Your task to perform on an android device: manage bookmarks in the chrome app Image 0: 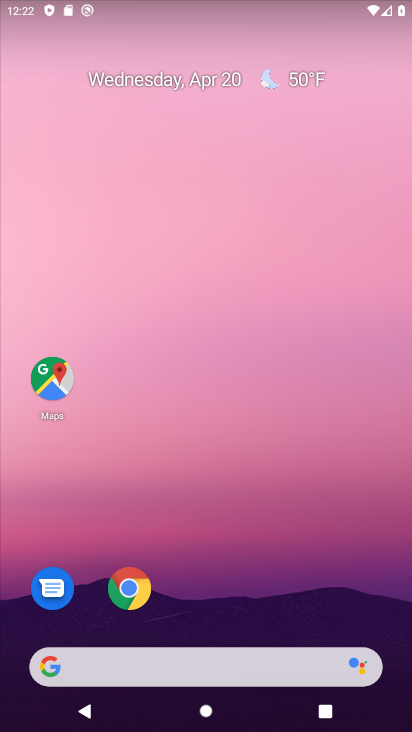
Step 0: click (125, 585)
Your task to perform on an android device: manage bookmarks in the chrome app Image 1: 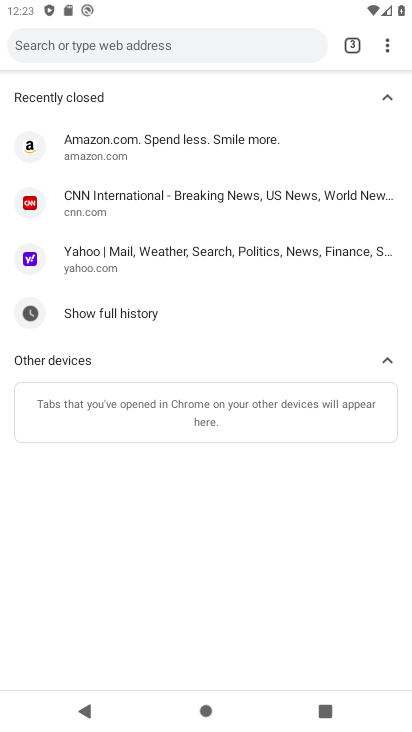
Step 1: click (381, 45)
Your task to perform on an android device: manage bookmarks in the chrome app Image 2: 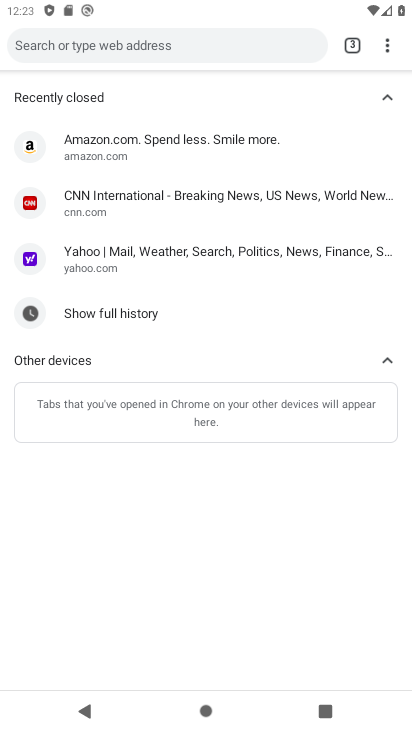
Step 2: click (388, 43)
Your task to perform on an android device: manage bookmarks in the chrome app Image 3: 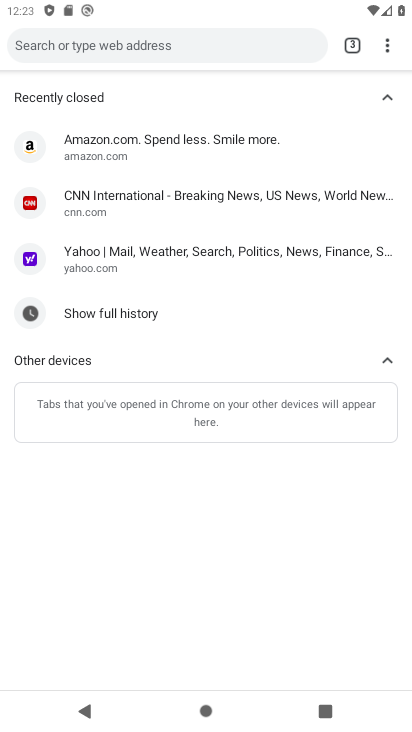
Step 3: click (388, 44)
Your task to perform on an android device: manage bookmarks in the chrome app Image 4: 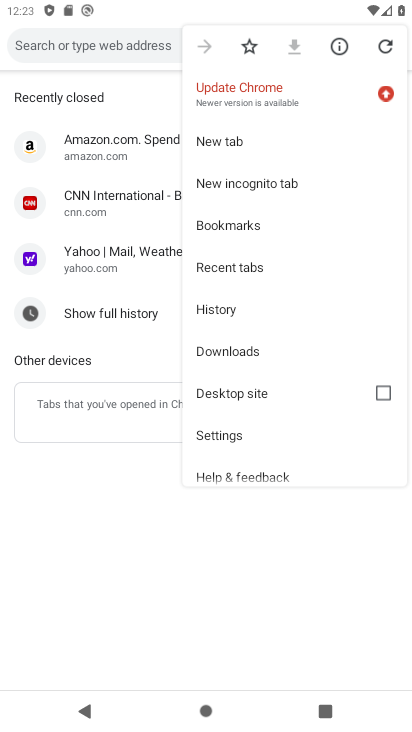
Step 4: click (259, 215)
Your task to perform on an android device: manage bookmarks in the chrome app Image 5: 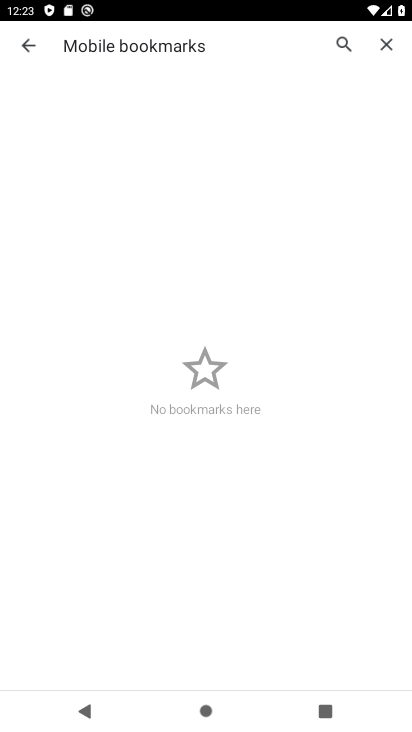
Step 5: task complete